Your task to perform on an android device: Go to CNN.com Image 0: 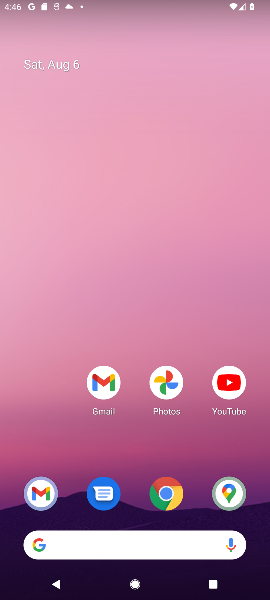
Step 0: drag from (123, 559) to (123, 214)
Your task to perform on an android device: Go to CNN.com Image 1: 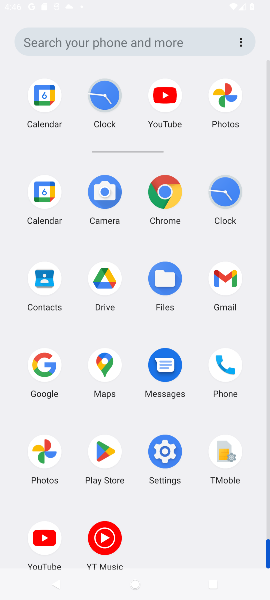
Step 1: click (136, 265)
Your task to perform on an android device: Go to CNN.com Image 2: 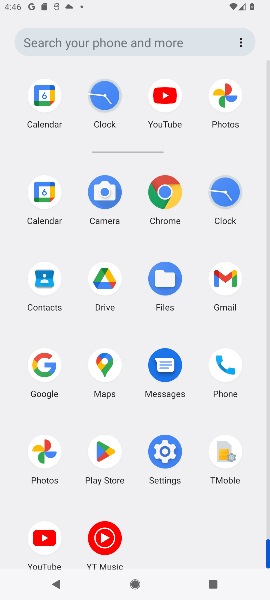
Step 2: drag from (153, 524) to (147, 251)
Your task to perform on an android device: Go to CNN.com Image 3: 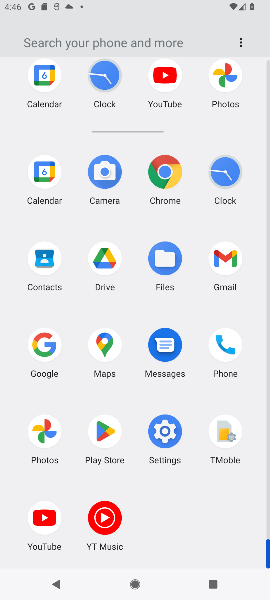
Step 3: click (159, 181)
Your task to perform on an android device: Go to CNN.com Image 4: 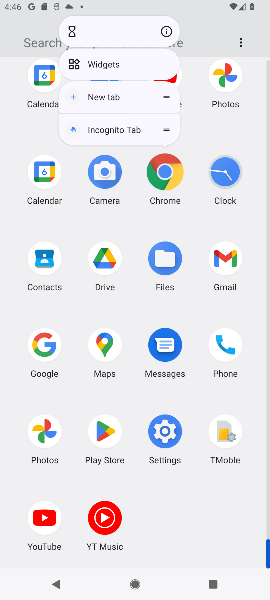
Step 4: click (159, 181)
Your task to perform on an android device: Go to CNN.com Image 5: 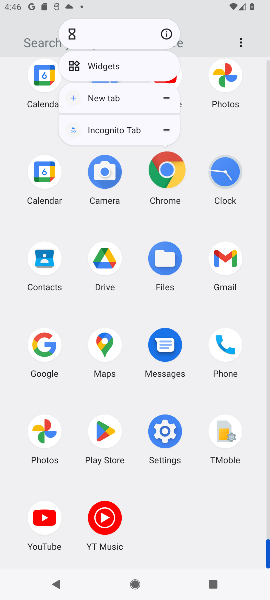
Step 5: click (175, 179)
Your task to perform on an android device: Go to CNN.com Image 6: 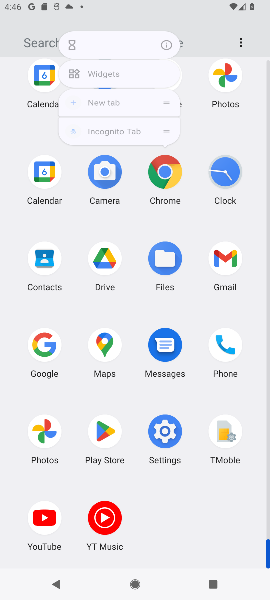
Step 6: click (164, 172)
Your task to perform on an android device: Go to CNN.com Image 7: 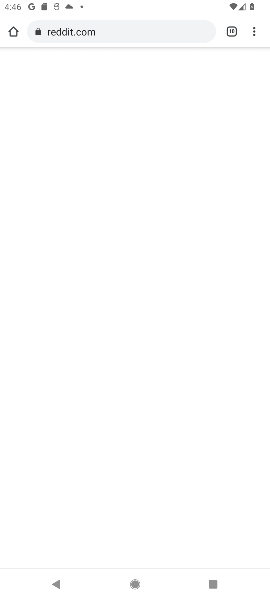
Step 7: click (115, 28)
Your task to perform on an android device: Go to CNN.com Image 8: 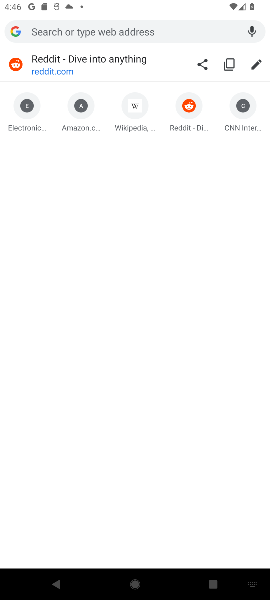
Step 8: type "CNN.com"
Your task to perform on an android device: Go to CNN.com Image 9: 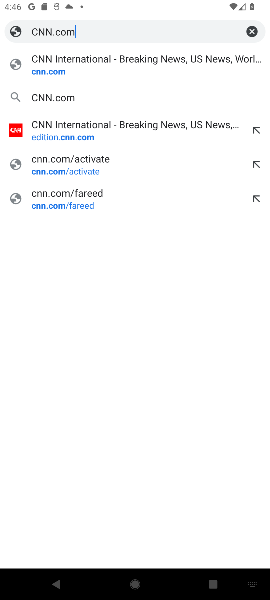
Step 9: click (35, 75)
Your task to perform on an android device: Go to CNN.com Image 10: 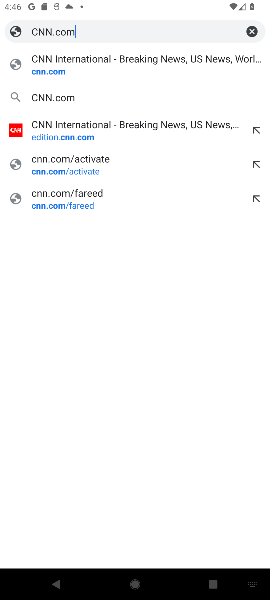
Step 10: click (34, 74)
Your task to perform on an android device: Go to CNN.com Image 11: 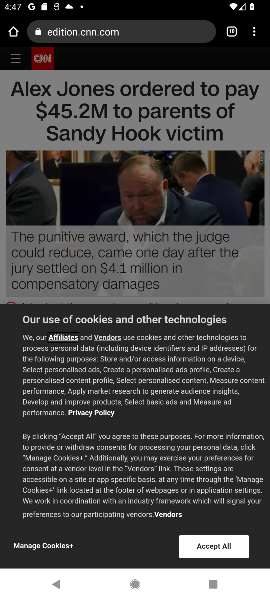
Step 11: task complete